Your task to perform on an android device: Open Google Chrome Image 0: 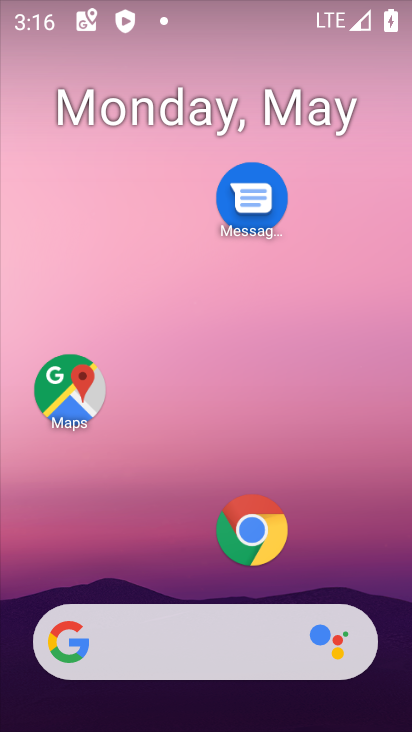
Step 0: drag from (116, 544) to (186, 135)
Your task to perform on an android device: Open Google Chrome Image 1: 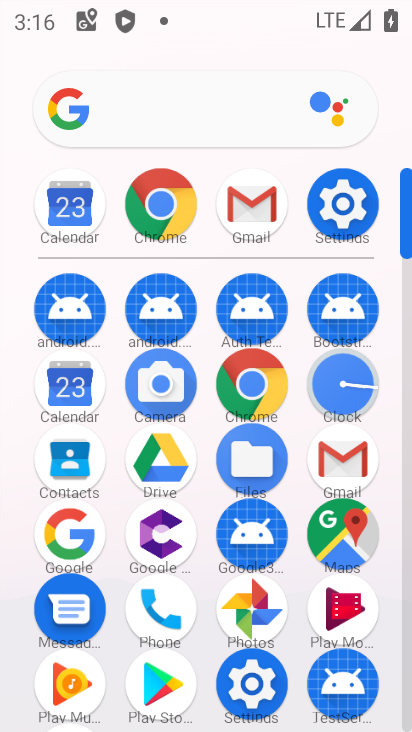
Step 1: click (168, 218)
Your task to perform on an android device: Open Google Chrome Image 2: 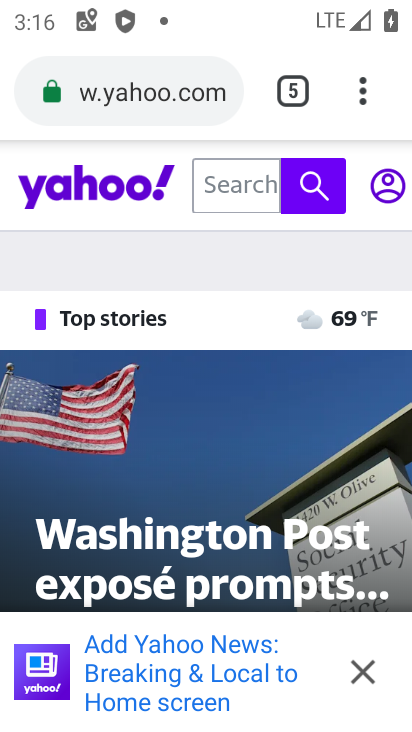
Step 2: task complete